Your task to perform on an android device: open a bookmark in the chrome app Image 0: 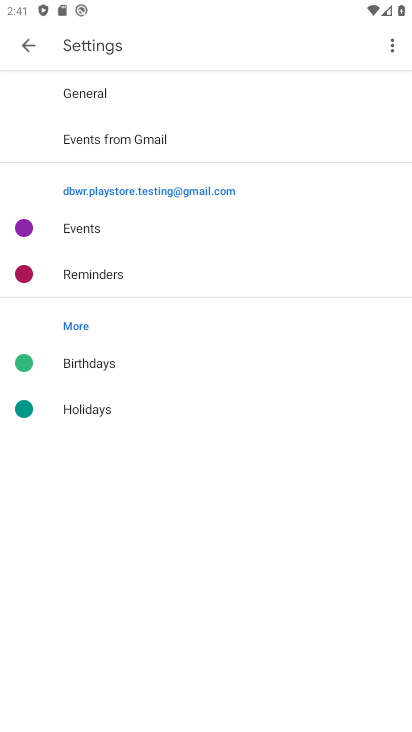
Step 0: press home button
Your task to perform on an android device: open a bookmark in the chrome app Image 1: 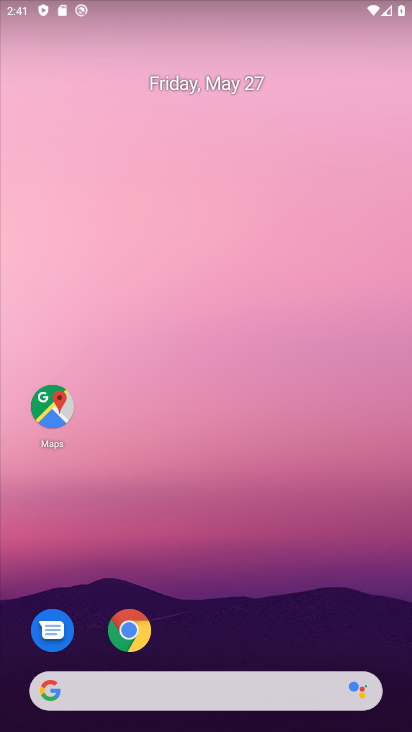
Step 1: click (135, 632)
Your task to perform on an android device: open a bookmark in the chrome app Image 2: 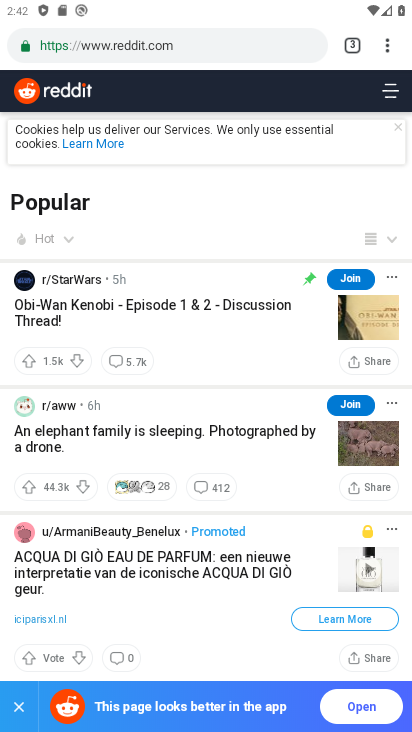
Step 2: task complete